Your task to perform on an android device: Play the last video I watched on Youtube Image 0: 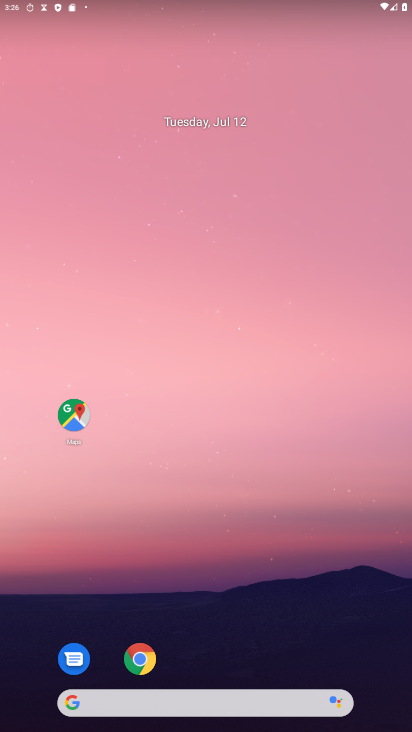
Step 0: drag from (279, 659) to (192, 141)
Your task to perform on an android device: Play the last video I watched on Youtube Image 1: 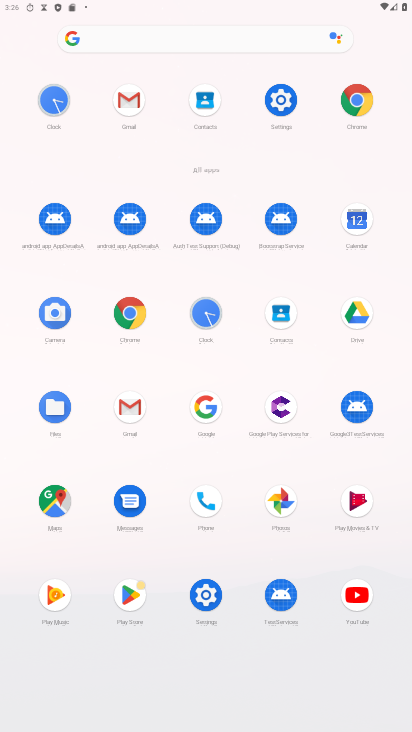
Step 1: click (355, 602)
Your task to perform on an android device: Play the last video I watched on Youtube Image 2: 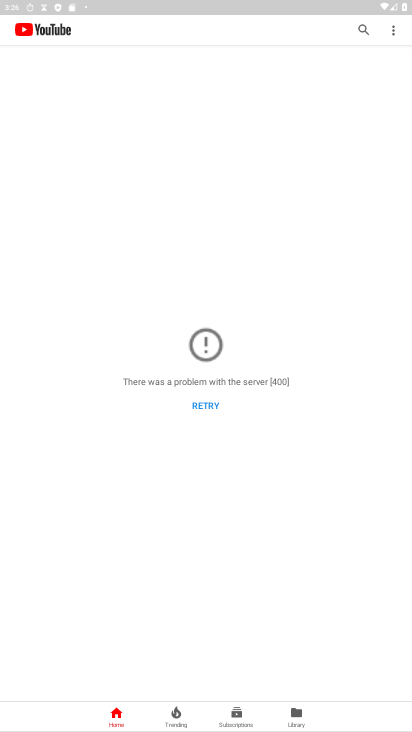
Step 2: task complete